Your task to perform on an android device: move an email to a new category in the gmail app Image 0: 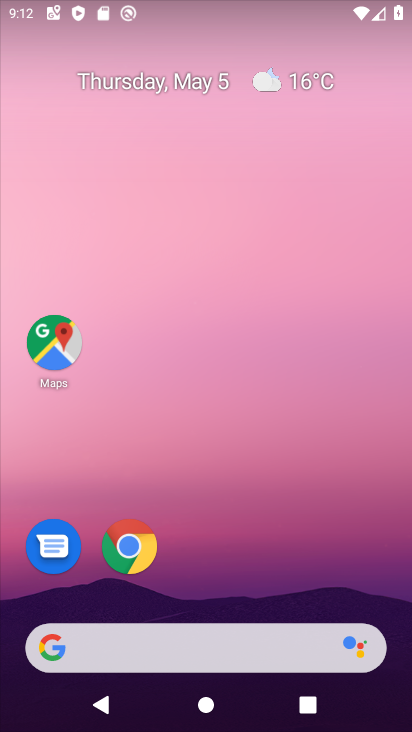
Step 0: drag from (180, 599) to (286, 75)
Your task to perform on an android device: move an email to a new category in the gmail app Image 1: 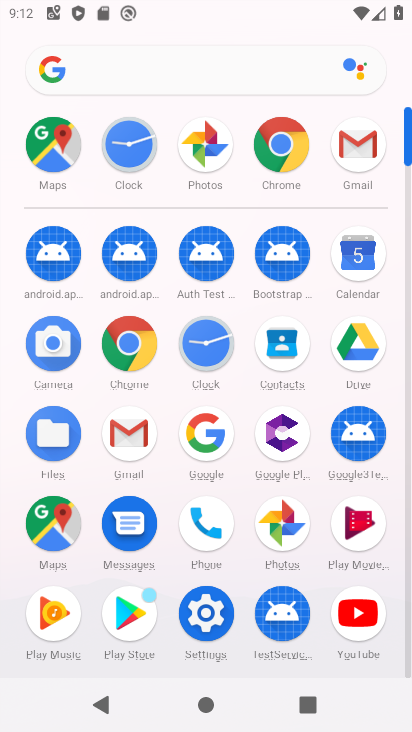
Step 1: click (273, 154)
Your task to perform on an android device: move an email to a new category in the gmail app Image 2: 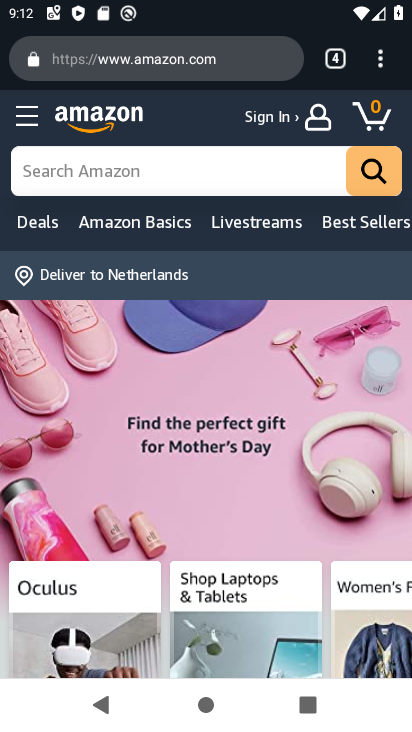
Step 2: press home button
Your task to perform on an android device: move an email to a new category in the gmail app Image 3: 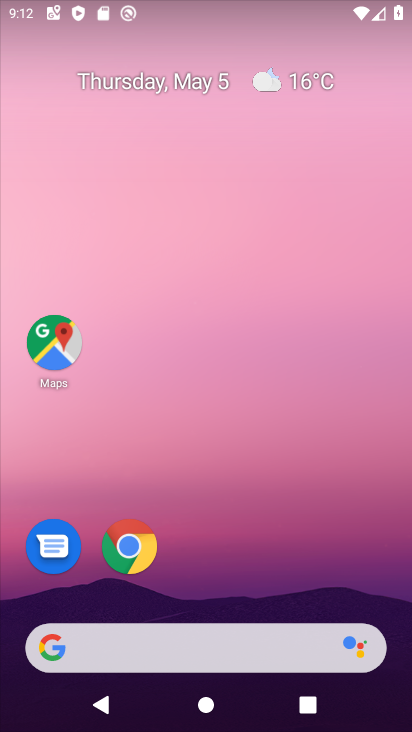
Step 3: drag from (169, 632) to (261, 55)
Your task to perform on an android device: move an email to a new category in the gmail app Image 4: 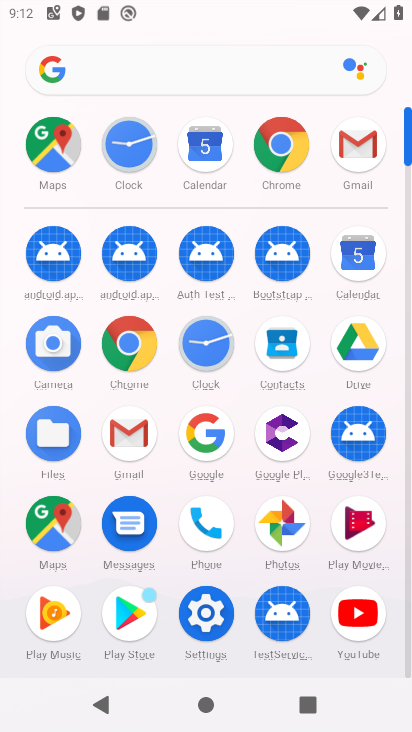
Step 4: click (358, 158)
Your task to perform on an android device: move an email to a new category in the gmail app Image 5: 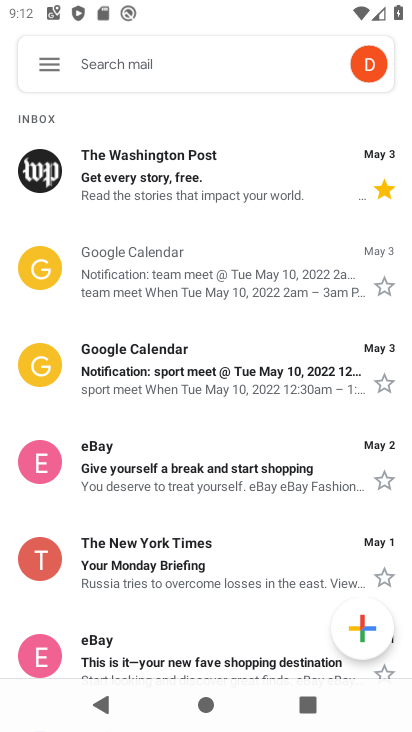
Step 5: click (47, 176)
Your task to perform on an android device: move an email to a new category in the gmail app Image 6: 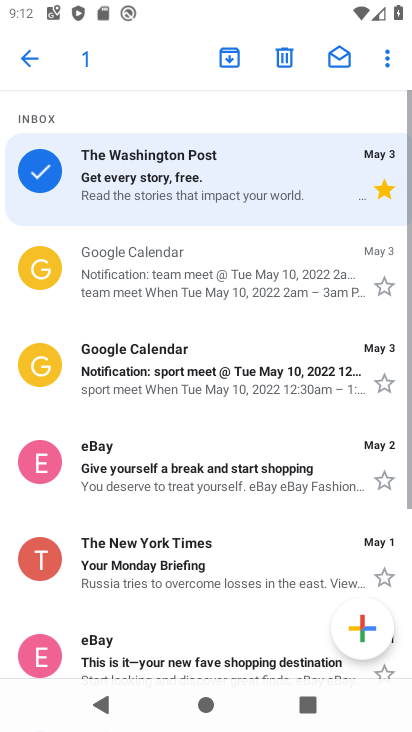
Step 6: click (388, 61)
Your task to perform on an android device: move an email to a new category in the gmail app Image 7: 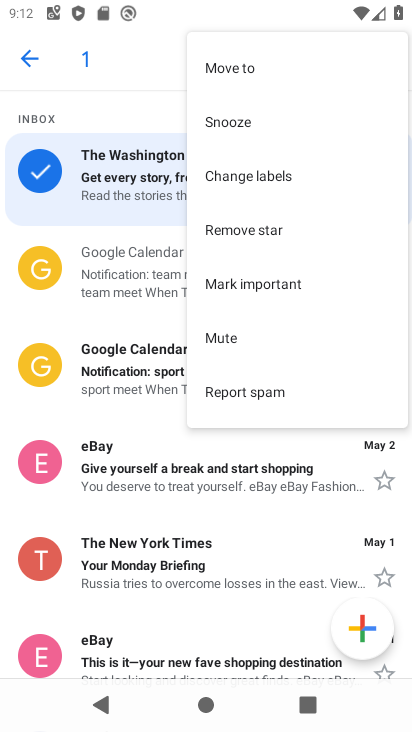
Step 7: click (273, 281)
Your task to perform on an android device: move an email to a new category in the gmail app Image 8: 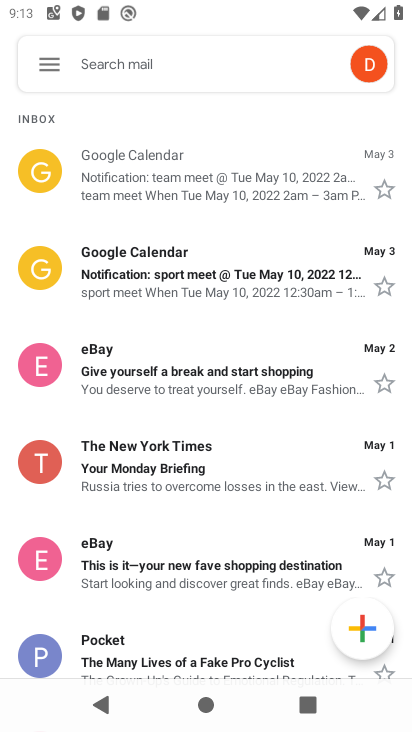
Step 8: task complete